Your task to perform on an android device: Open Youtube and go to the subscriptions tab Image 0: 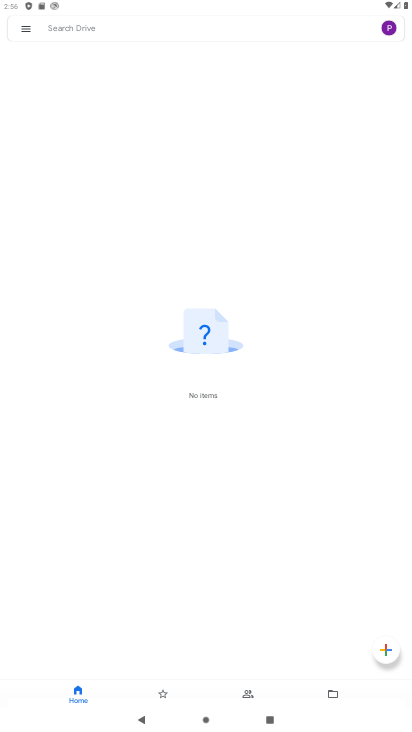
Step 0: press home button
Your task to perform on an android device: Open Youtube and go to the subscriptions tab Image 1: 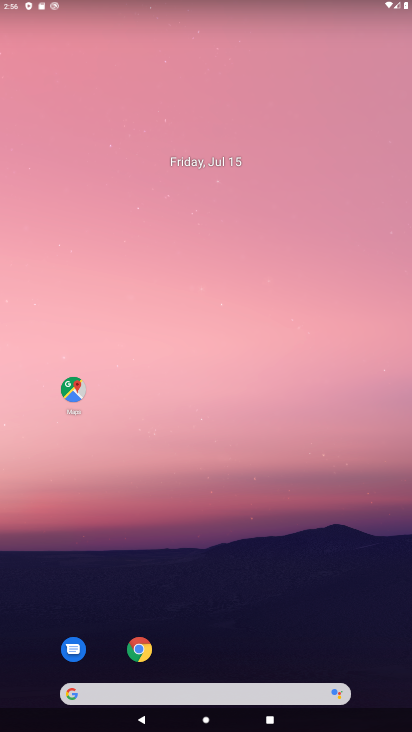
Step 1: drag from (299, 618) to (299, 138)
Your task to perform on an android device: Open Youtube and go to the subscriptions tab Image 2: 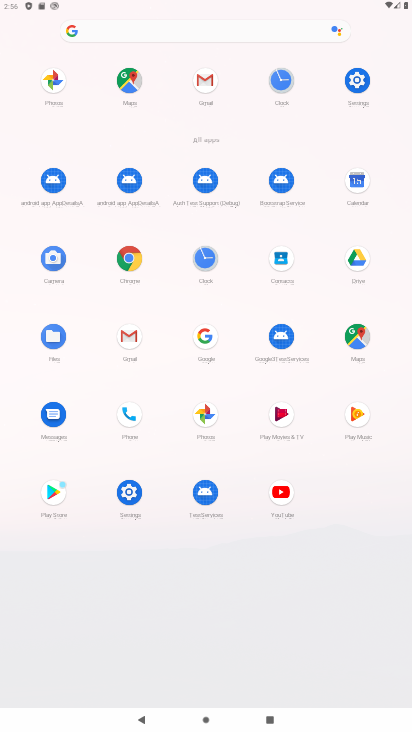
Step 2: click (283, 491)
Your task to perform on an android device: Open Youtube and go to the subscriptions tab Image 3: 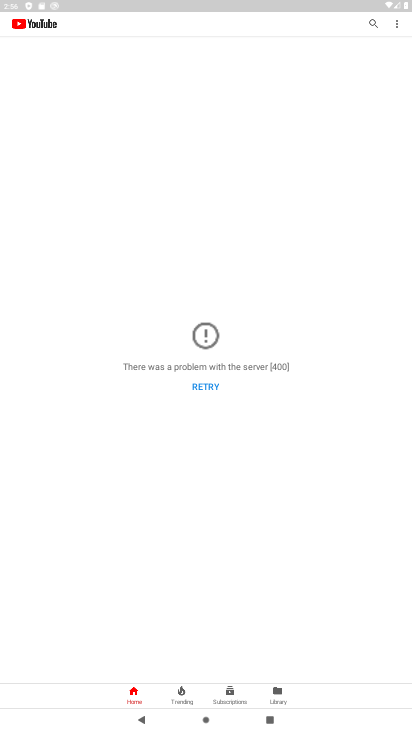
Step 3: click (227, 697)
Your task to perform on an android device: Open Youtube and go to the subscriptions tab Image 4: 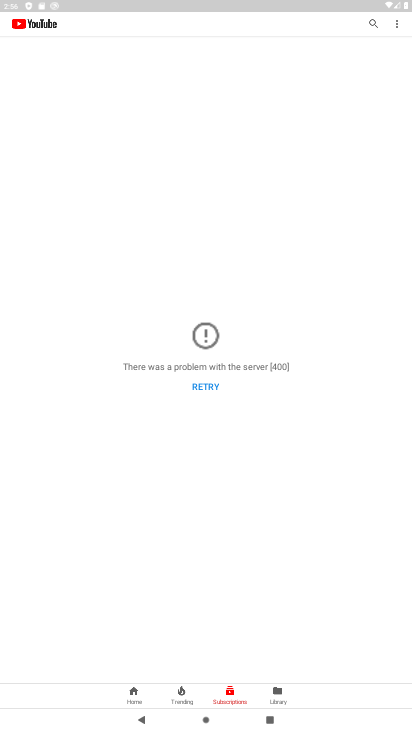
Step 4: task complete